Your task to perform on an android device: Open Android settings Image 0: 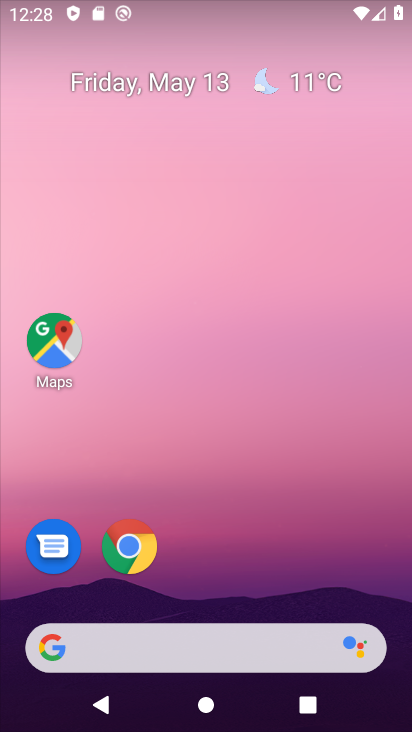
Step 0: drag from (267, 587) to (365, 177)
Your task to perform on an android device: Open Android settings Image 1: 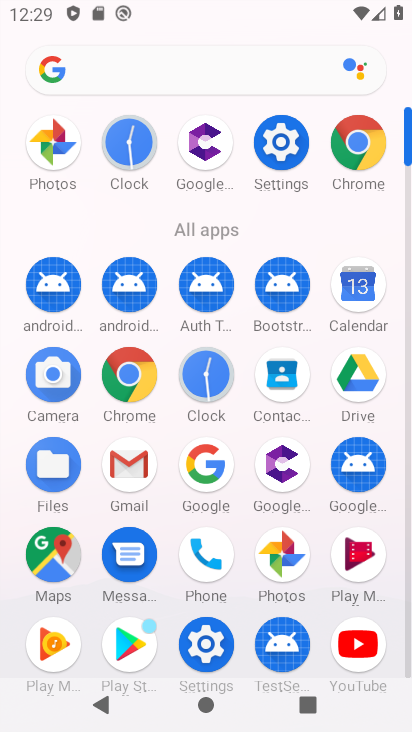
Step 1: click (295, 167)
Your task to perform on an android device: Open Android settings Image 2: 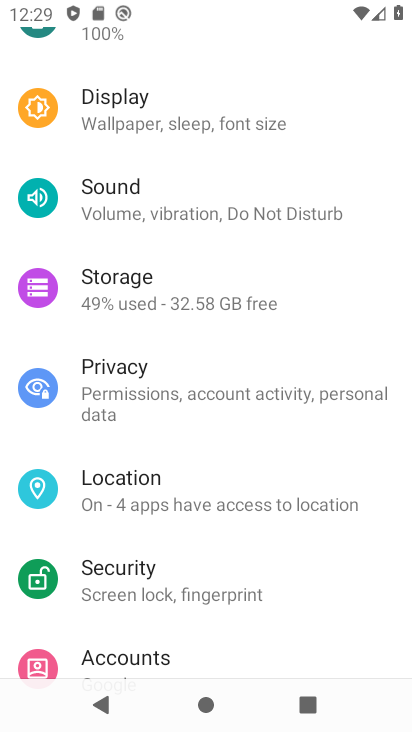
Step 2: drag from (216, 464) to (257, 292)
Your task to perform on an android device: Open Android settings Image 3: 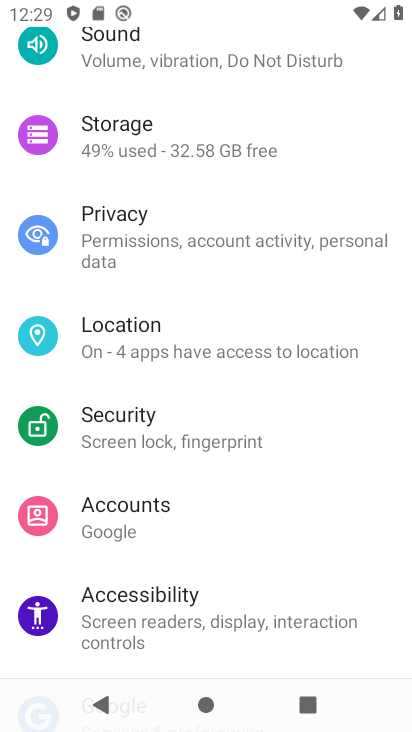
Step 3: drag from (207, 541) to (253, 351)
Your task to perform on an android device: Open Android settings Image 4: 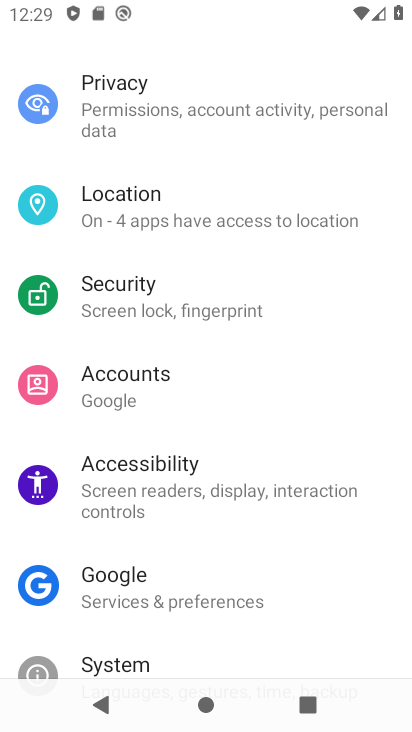
Step 4: drag from (218, 569) to (293, 249)
Your task to perform on an android device: Open Android settings Image 5: 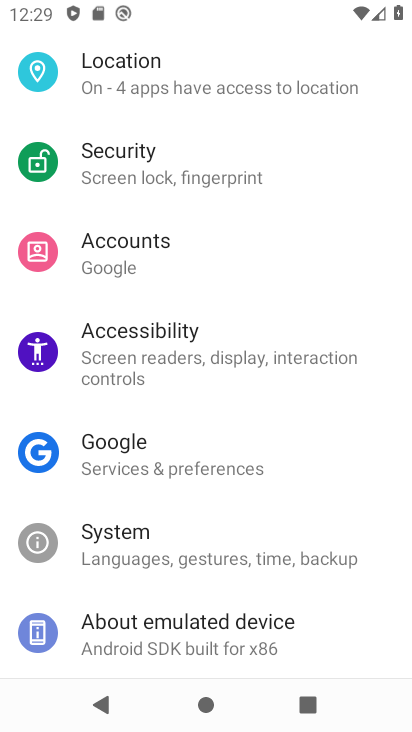
Step 5: click (233, 623)
Your task to perform on an android device: Open Android settings Image 6: 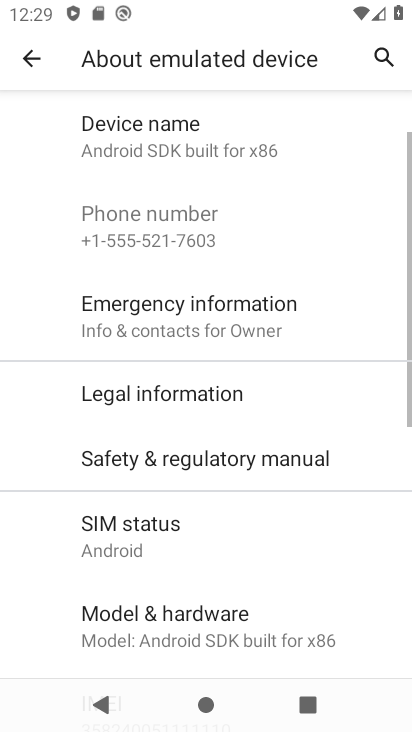
Step 6: drag from (240, 576) to (297, 323)
Your task to perform on an android device: Open Android settings Image 7: 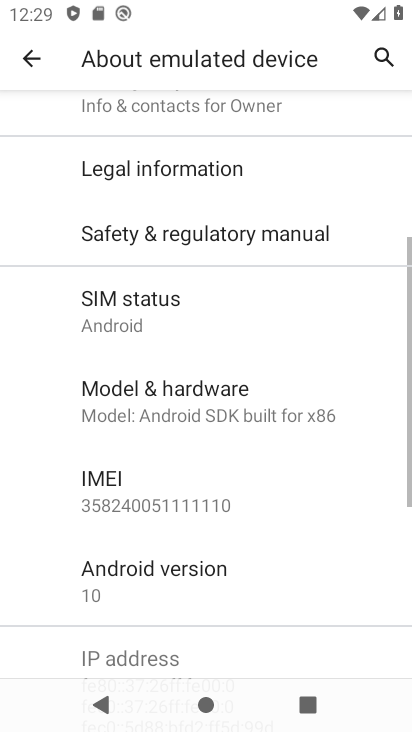
Step 7: click (219, 581)
Your task to perform on an android device: Open Android settings Image 8: 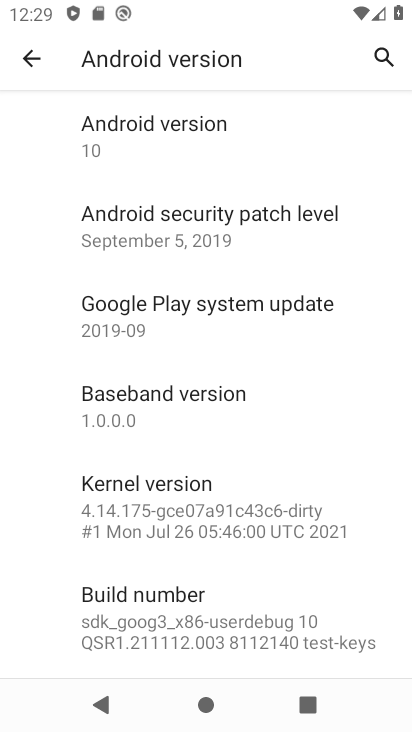
Step 8: task complete